Your task to perform on an android device: see creations saved in the google photos Image 0: 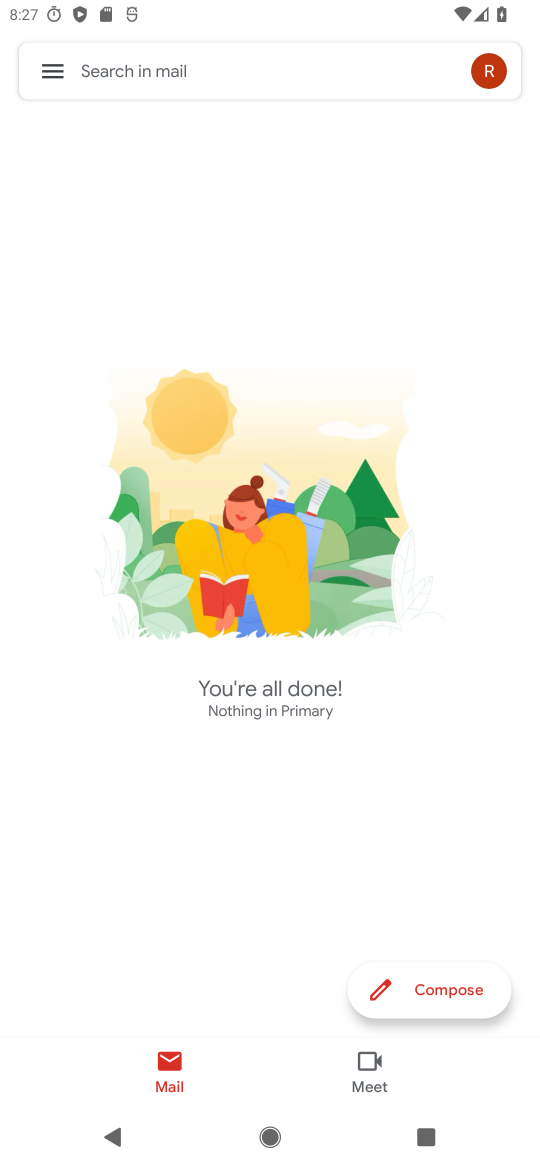
Step 0: press home button
Your task to perform on an android device: see creations saved in the google photos Image 1: 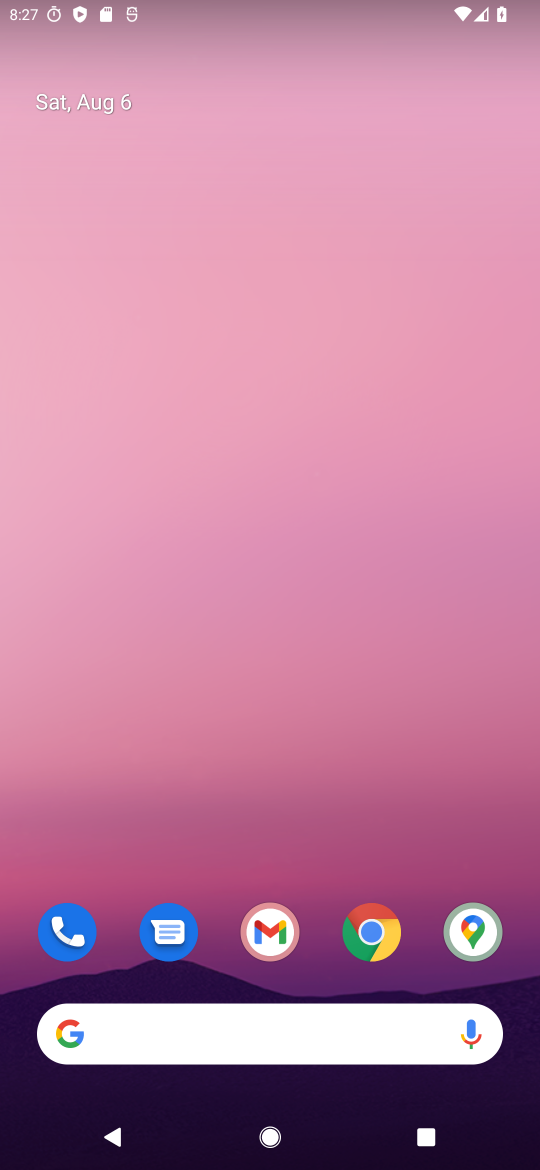
Step 1: drag from (229, 1035) to (394, 479)
Your task to perform on an android device: see creations saved in the google photos Image 2: 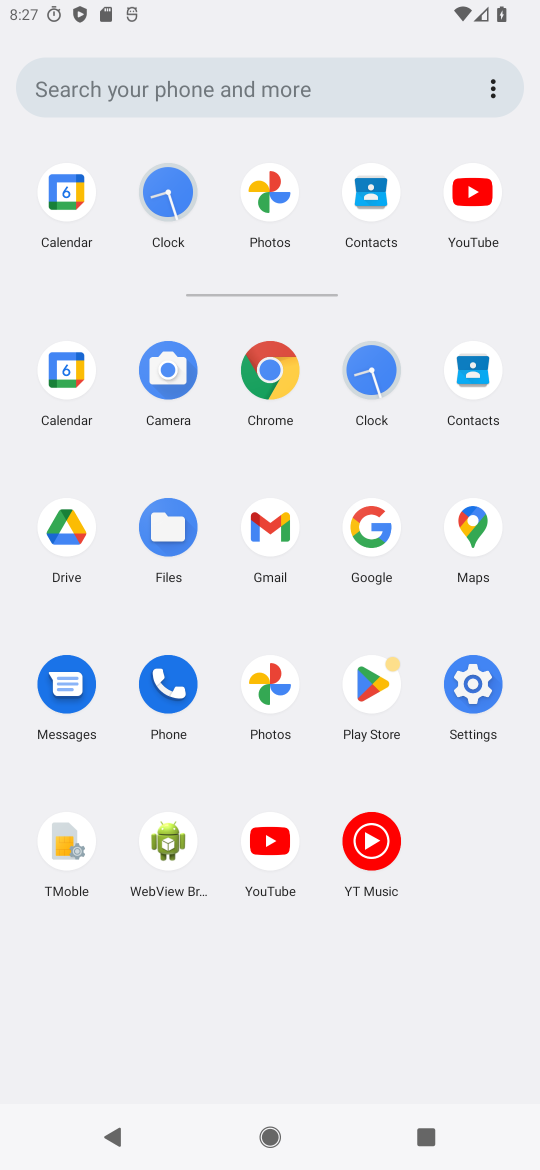
Step 2: click (279, 682)
Your task to perform on an android device: see creations saved in the google photos Image 3: 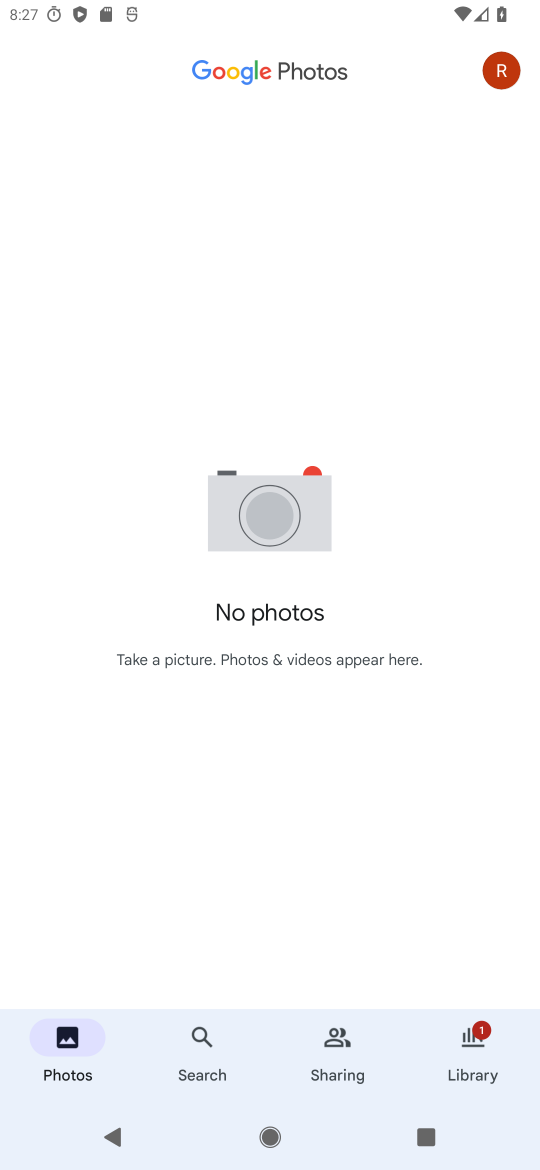
Step 3: click (201, 1038)
Your task to perform on an android device: see creations saved in the google photos Image 4: 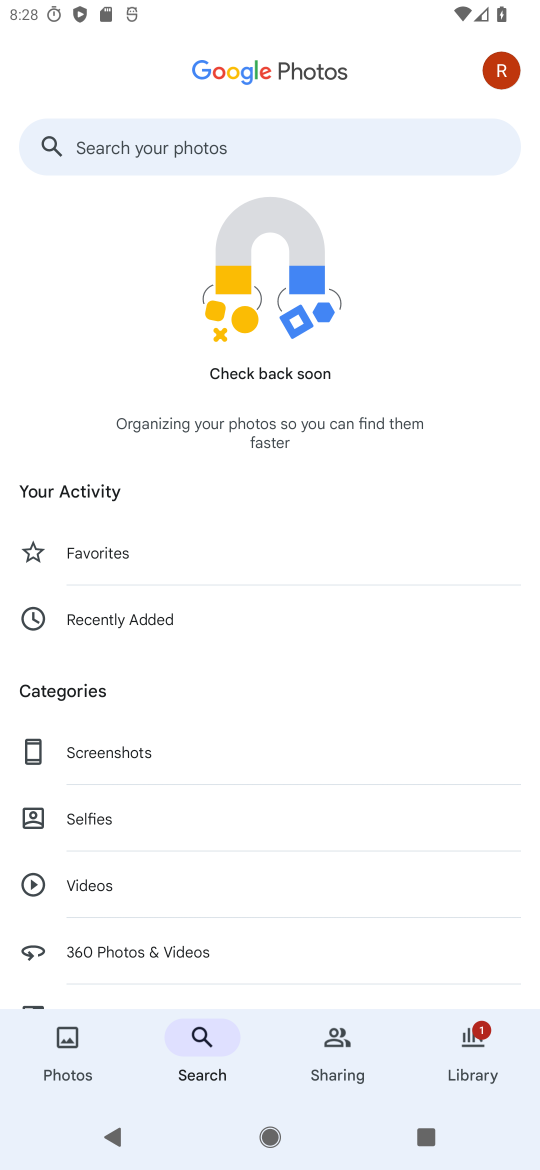
Step 4: drag from (231, 860) to (376, 497)
Your task to perform on an android device: see creations saved in the google photos Image 5: 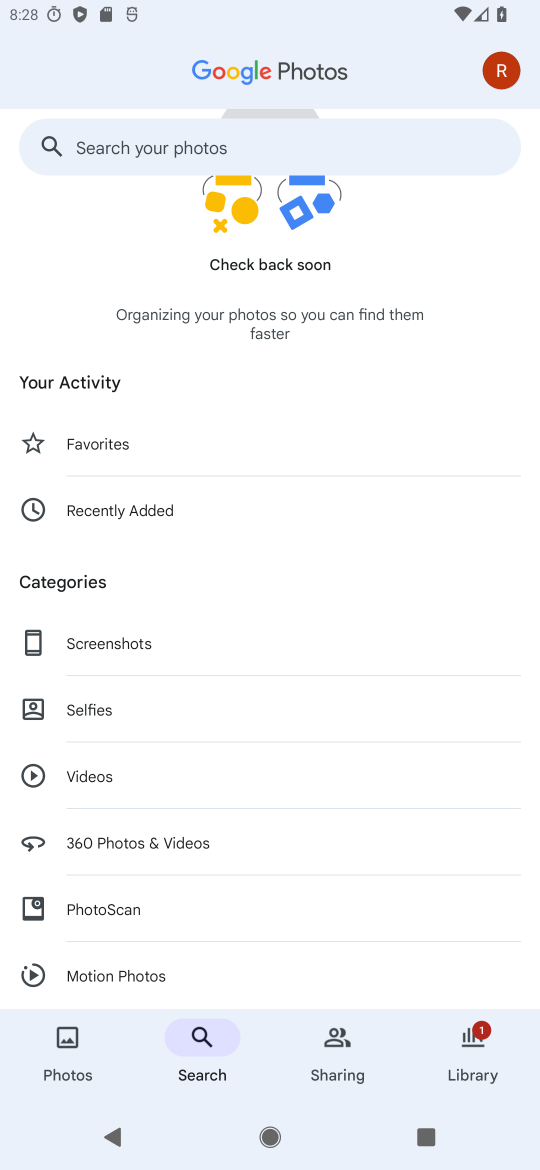
Step 5: drag from (156, 903) to (350, 512)
Your task to perform on an android device: see creations saved in the google photos Image 6: 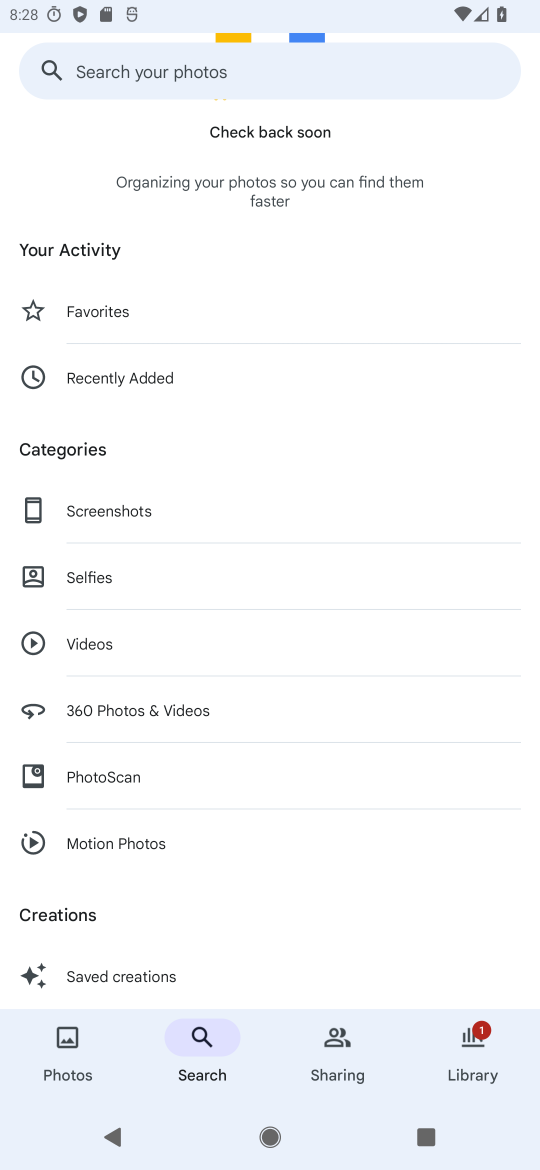
Step 6: click (136, 974)
Your task to perform on an android device: see creations saved in the google photos Image 7: 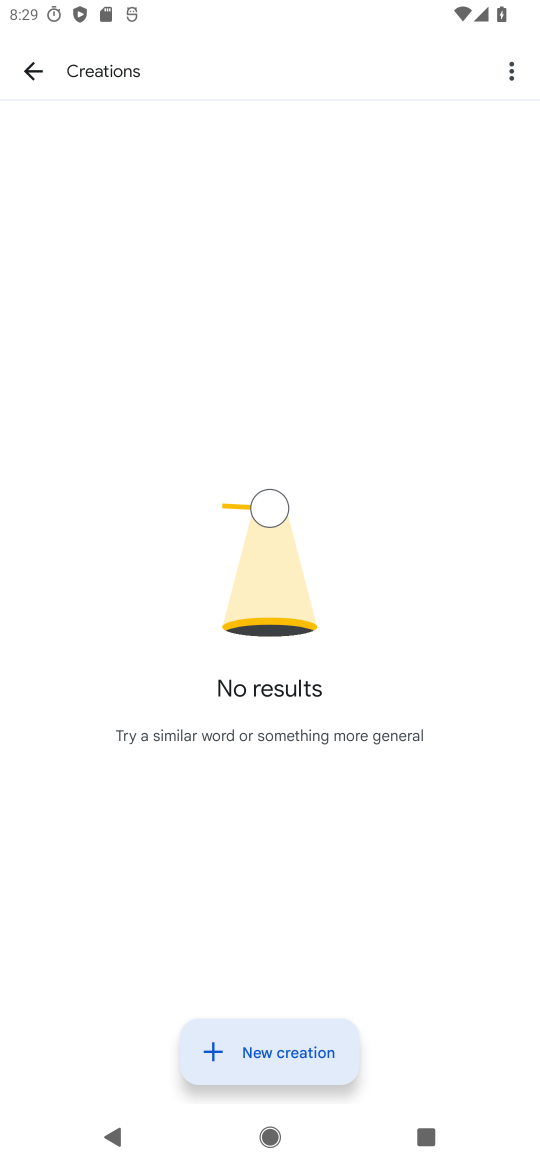
Step 7: task complete